Your task to perform on an android device: Open calendar and show me the third week of next month Image 0: 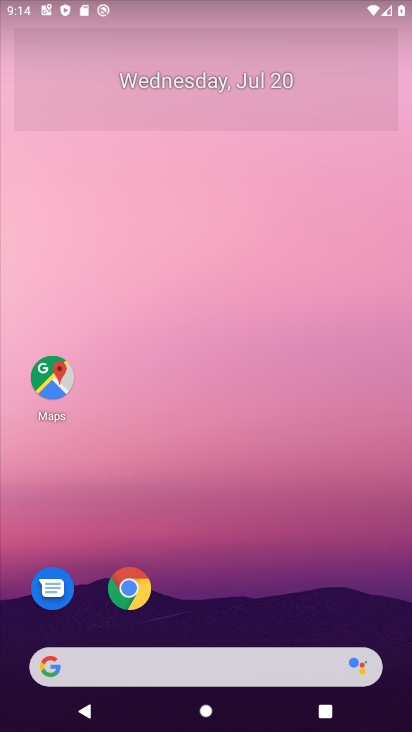
Step 0: press home button
Your task to perform on an android device: Open calendar and show me the third week of next month Image 1: 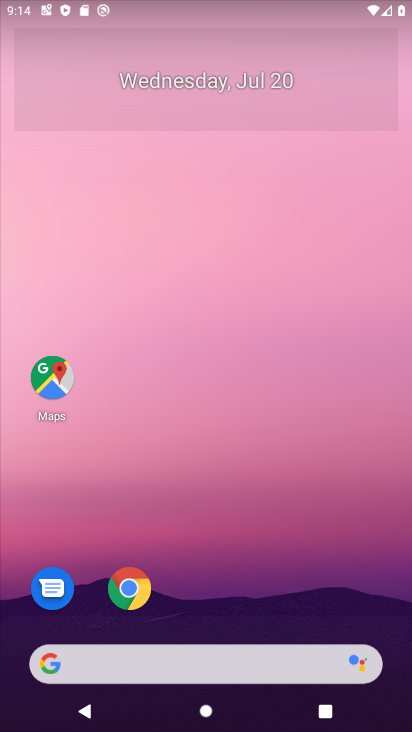
Step 1: drag from (291, 596) to (300, 81)
Your task to perform on an android device: Open calendar and show me the third week of next month Image 2: 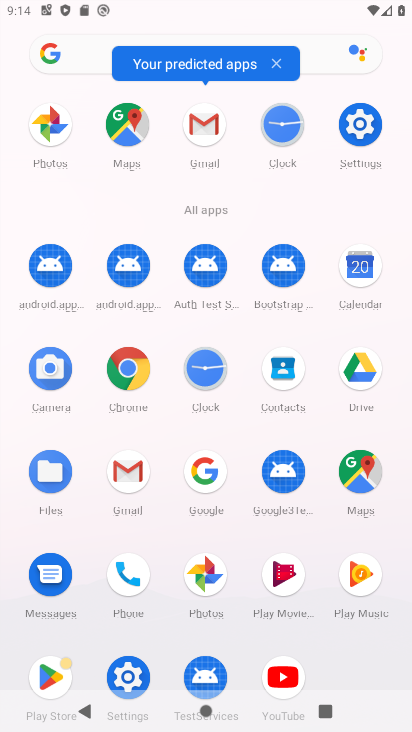
Step 2: click (363, 275)
Your task to perform on an android device: Open calendar and show me the third week of next month Image 3: 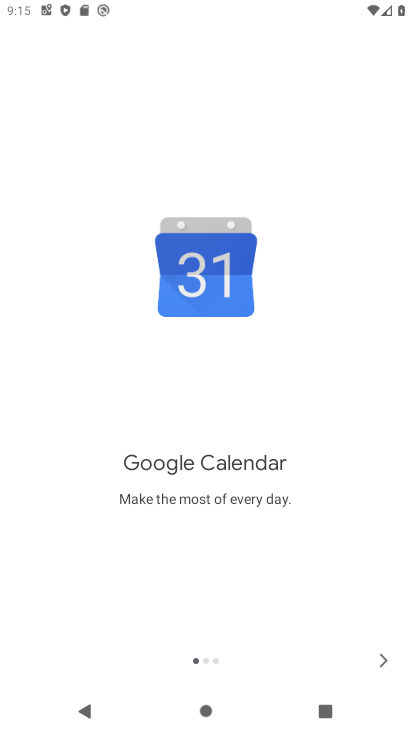
Step 3: click (378, 666)
Your task to perform on an android device: Open calendar and show me the third week of next month Image 4: 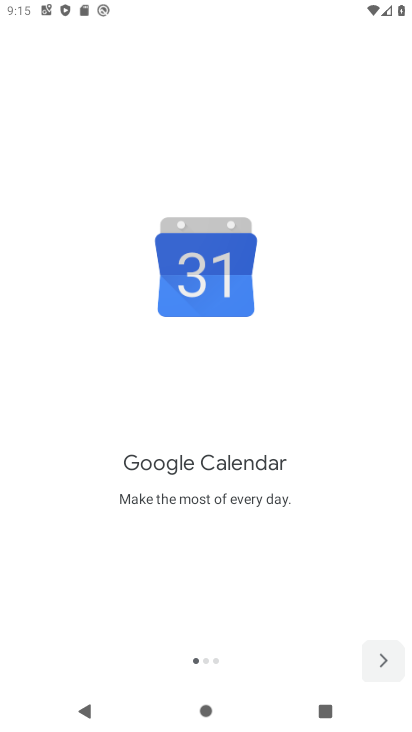
Step 4: click (378, 666)
Your task to perform on an android device: Open calendar and show me the third week of next month Image 5: 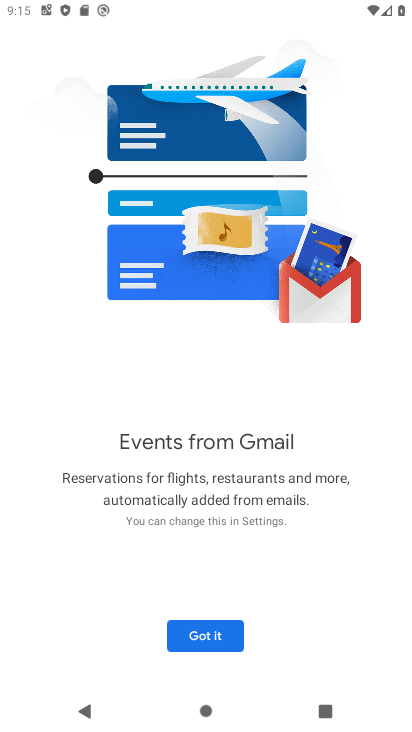
Step 5: click (193, 631)
Your task to perform on an android device: Open calendar and show me the third week of next month Image 6: 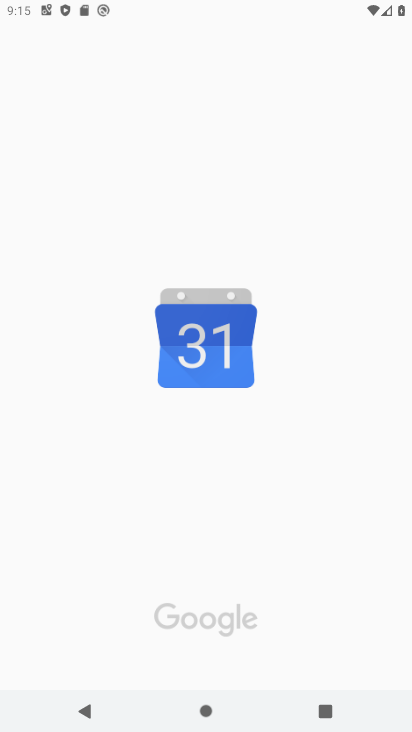
Step 6: drag from (198, 630) to (11, 577)
Your task to perform on an android device: Open calendar and show me the third week of next month Image 7: 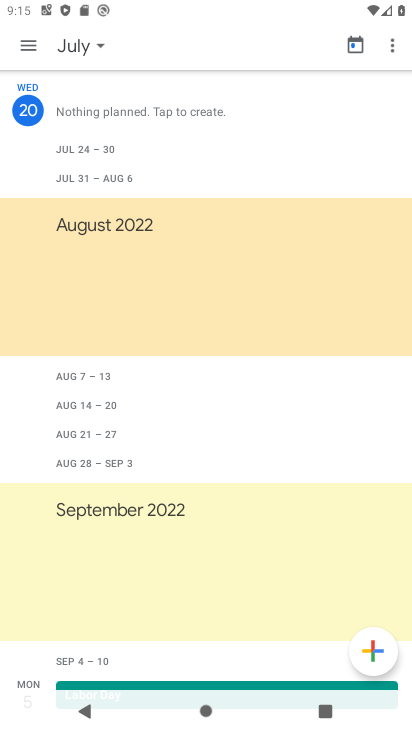
Step 7: click (26, 43)
Your task to perform on an android device: Open calendar and show me the third week of next month Image 8: 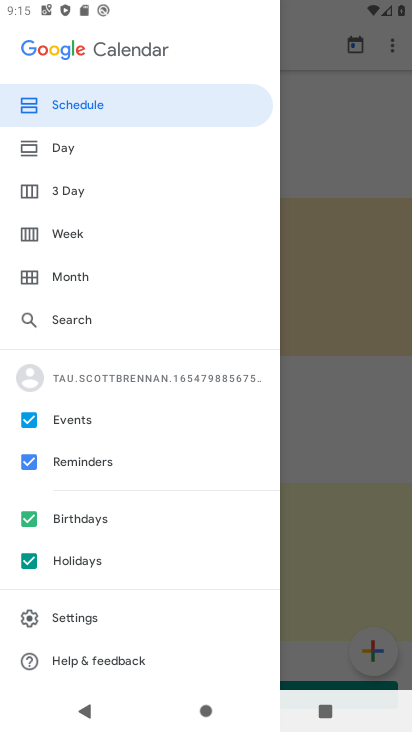
Step 8: click (83, 281)
Your task to perform on an android device: Open calendar and show me the third week of next month Image 9: 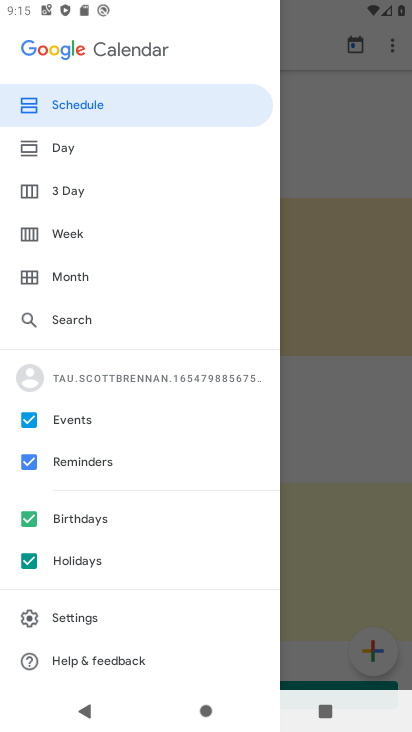
Step 9: click (65, 278)
Your task to perform on an android device: Open calendar and show me the third week of next month Image 10: 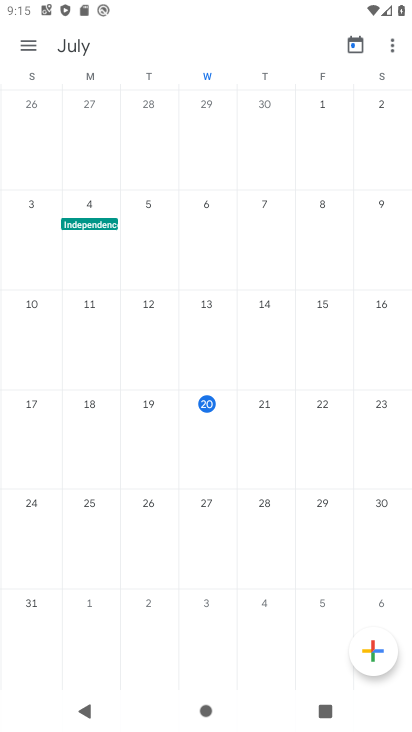
Step 10: task complete